Your task to perform on an android device: Open battery settings Image 0: 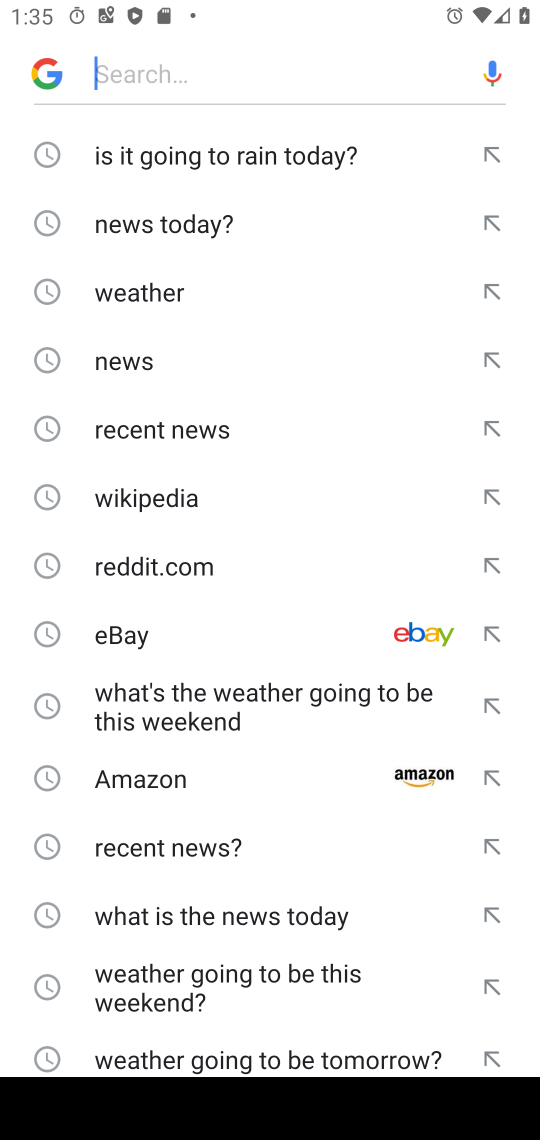
Step 0: press home button
Your task to perform on an android device: Open battery settings Image 1: 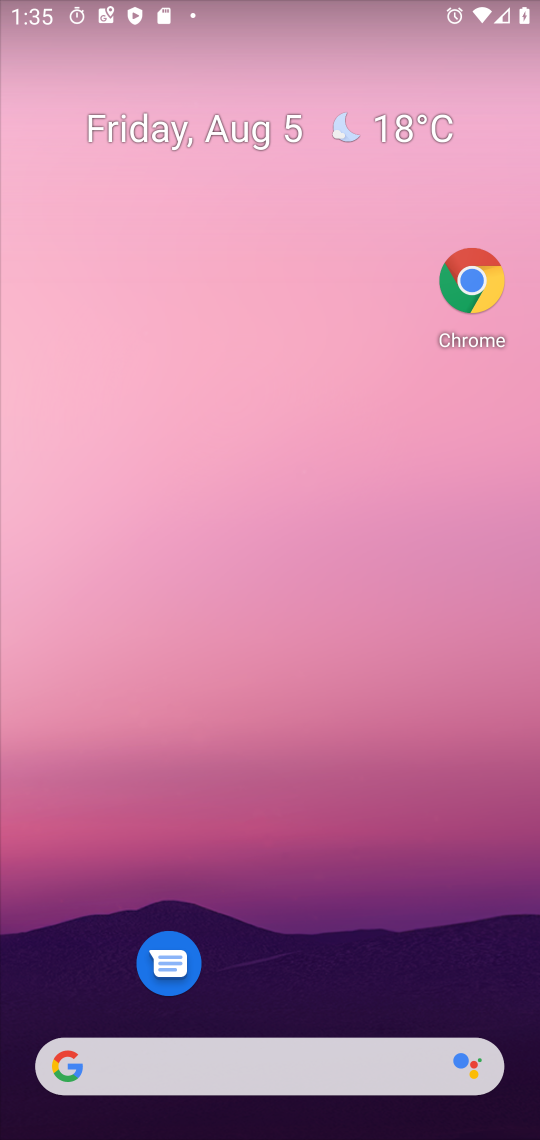
Step 1: drag from (118, 970) to (205, 149)
Your task to perform on an android device: Open battery settings Image 2: 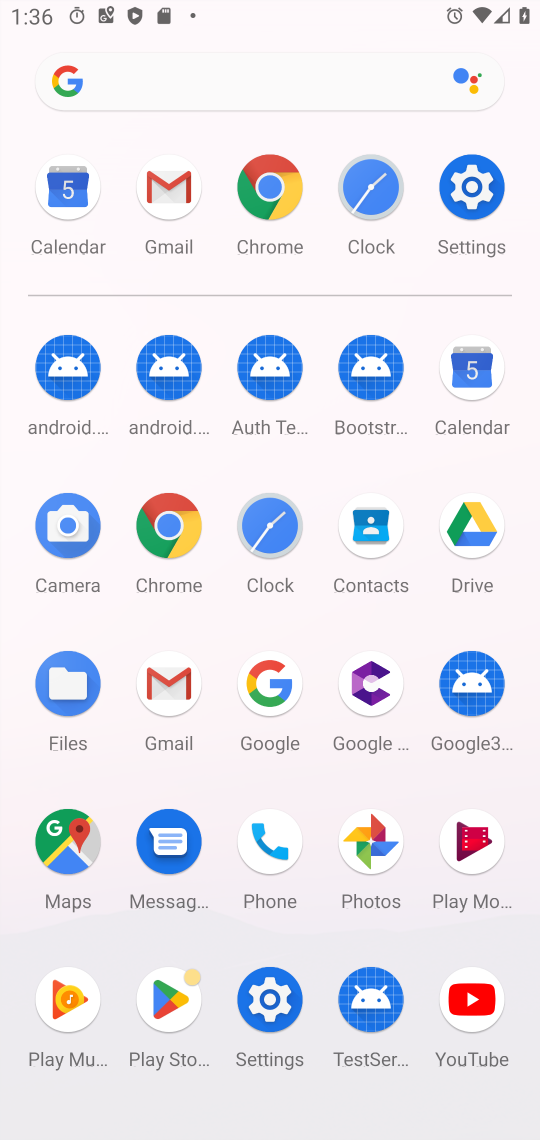
Step 2: click (478, 194)
Your task to perform on an android device: Open battery settings Image 3: 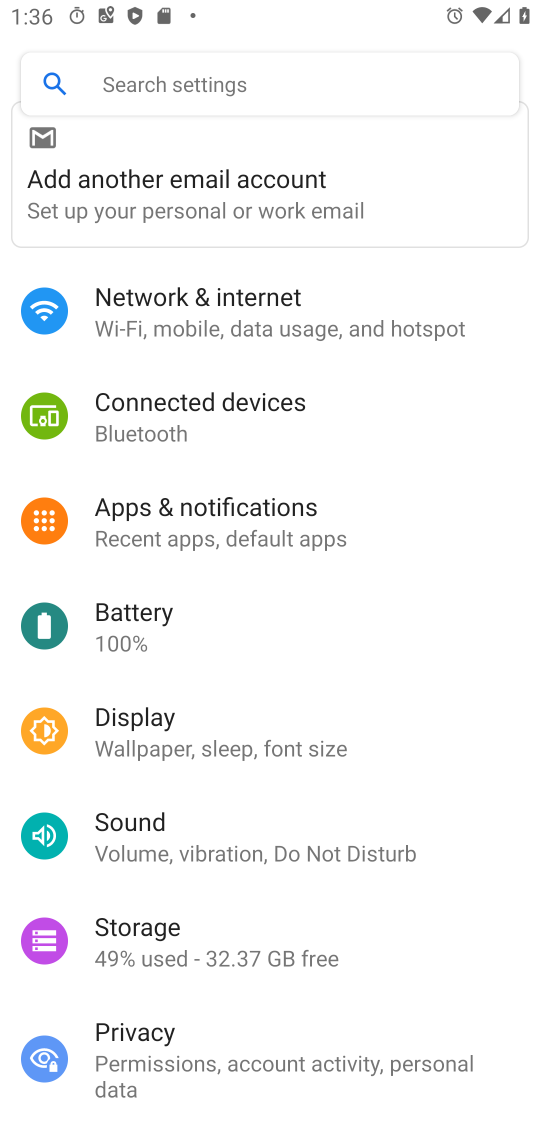
Step 3: click (118, 619)
Your task to perform on an android device: Open battery settings Image 4: 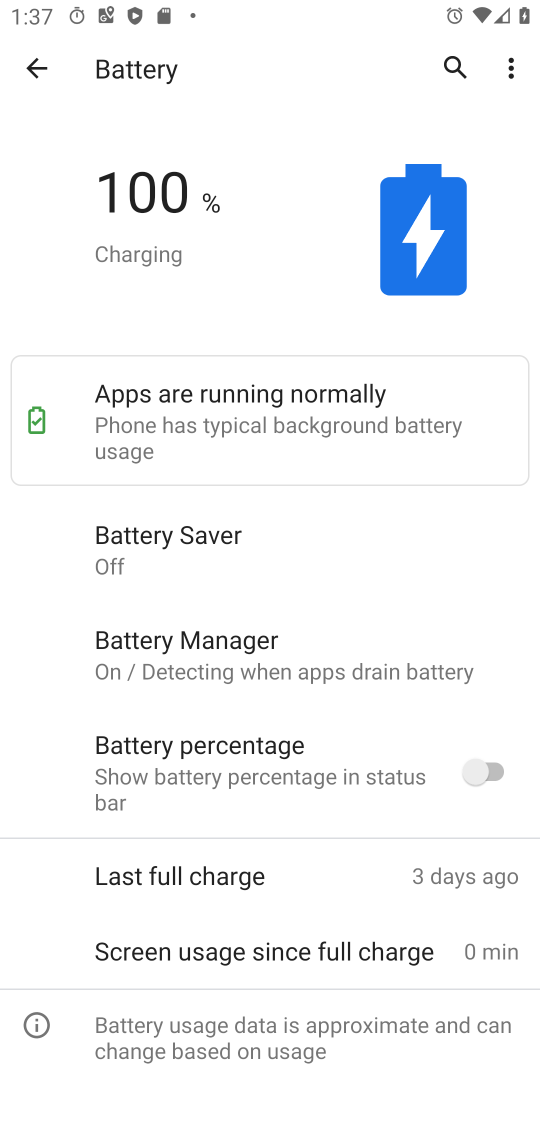
Step 4: task complete